Your task to perform on an android device: Look up the best rated book on Goodreads Image 0: 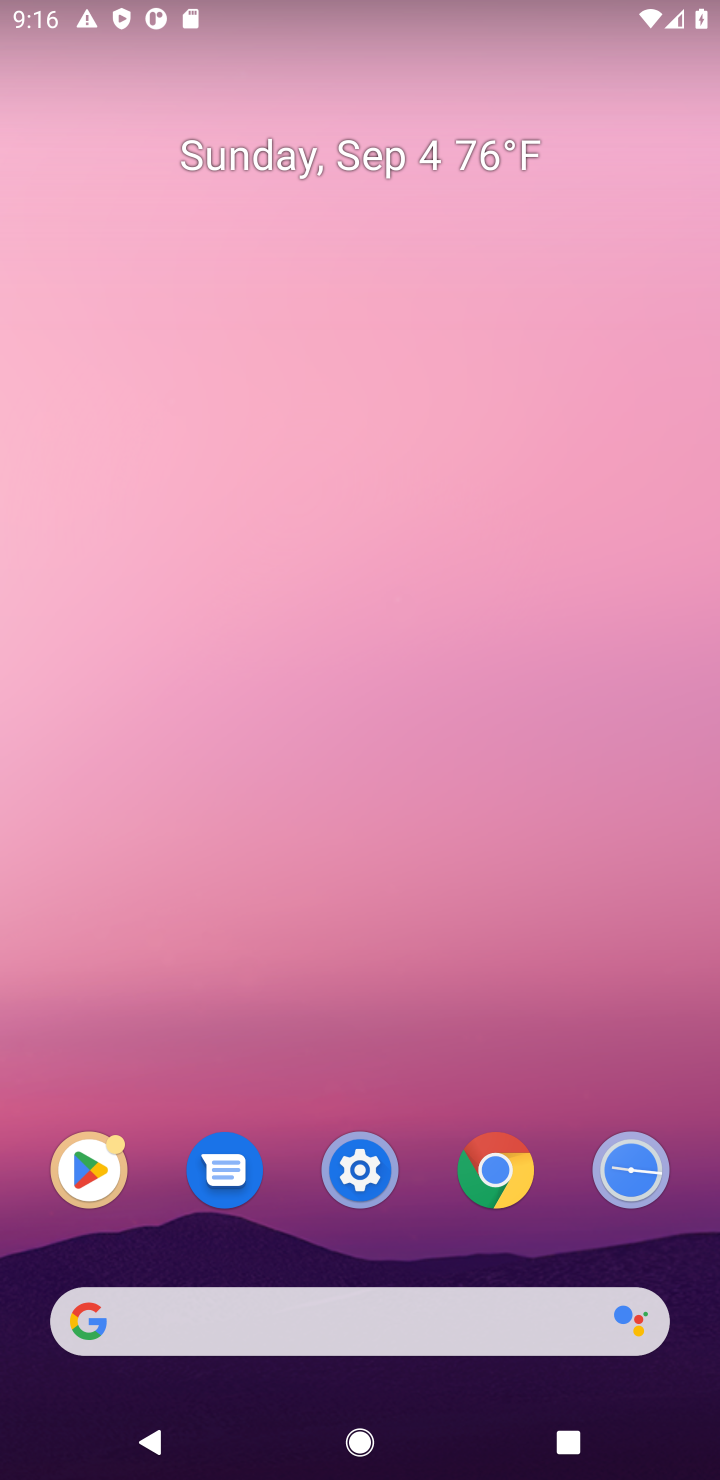
Step 0: click (403, 1297)
Your task to perform on an android device: Look up the best rated book on Goodreads Image 1: 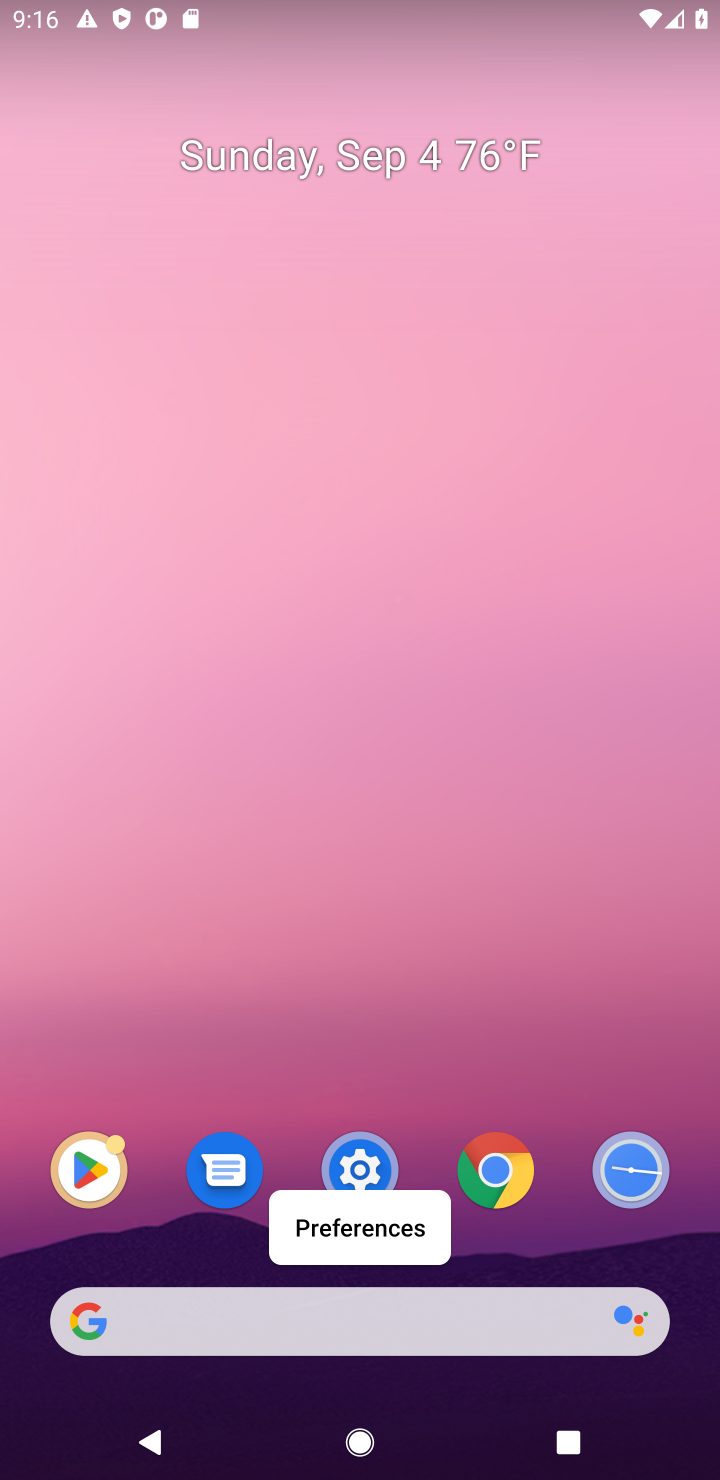
Step 1: click (412, 1318)
Your task to perform on an android device: Look up the best rated book on Goodreads Image 2: 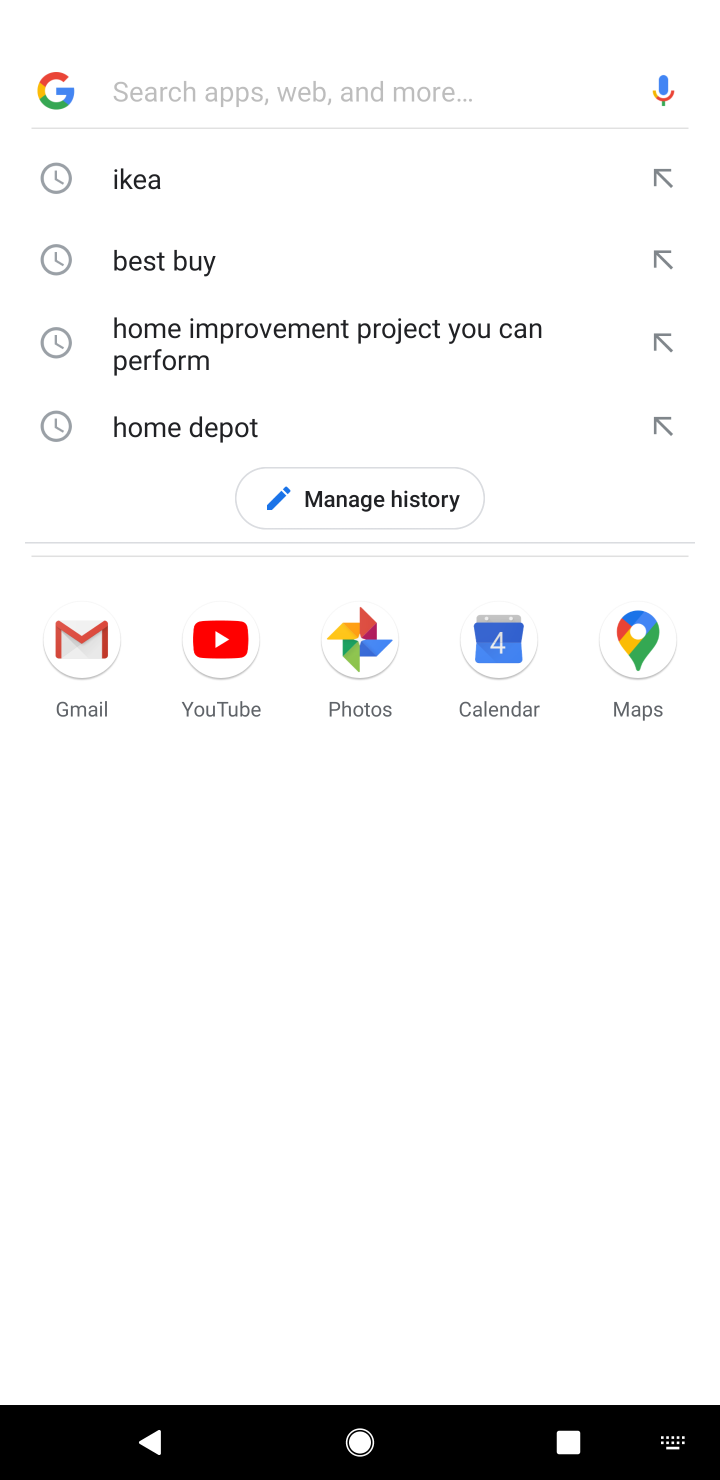
Step 2: click (412, 1318)
Your task to perform on an android device: Look up the best rated book on Goodreads Image 3: 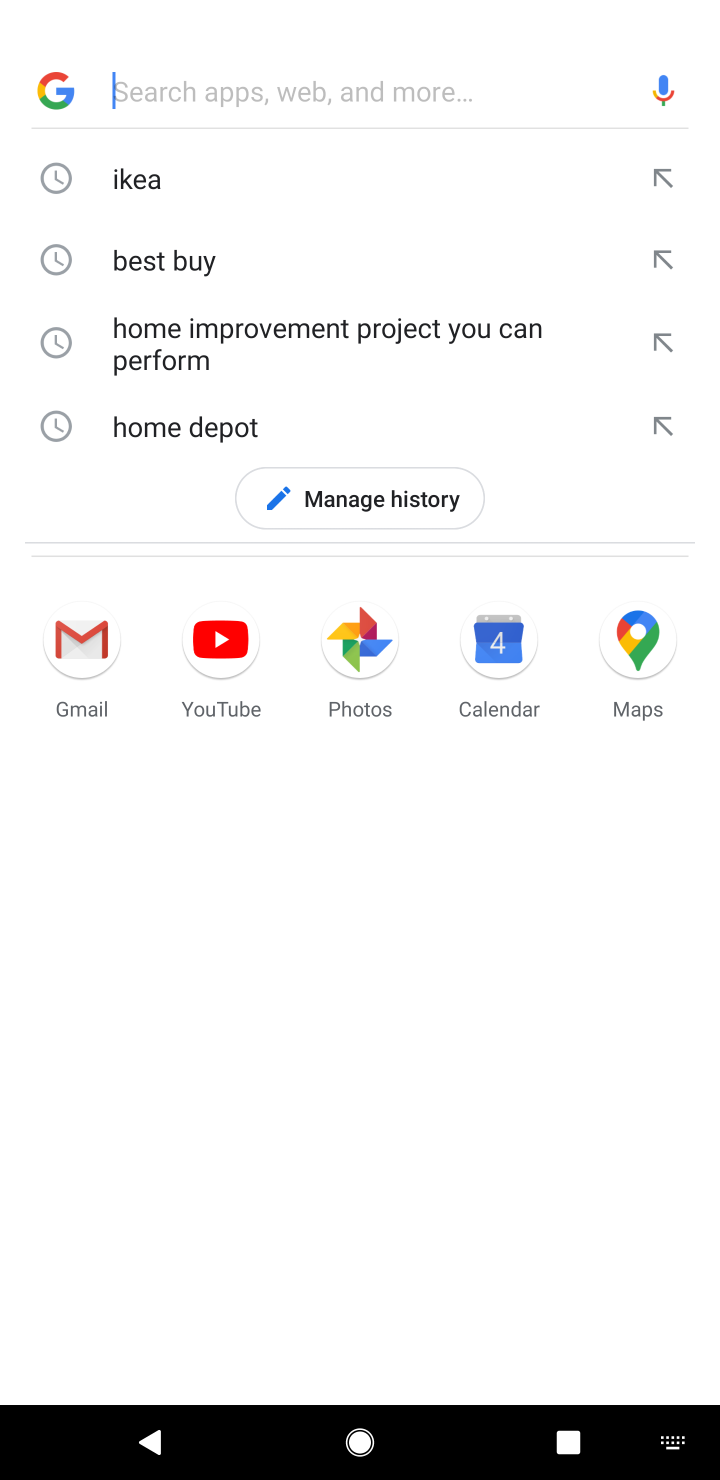
Step 3: type "Goodreads"
Your task to perform on an android device: Look up the best rated book on Goodreads Image 4: 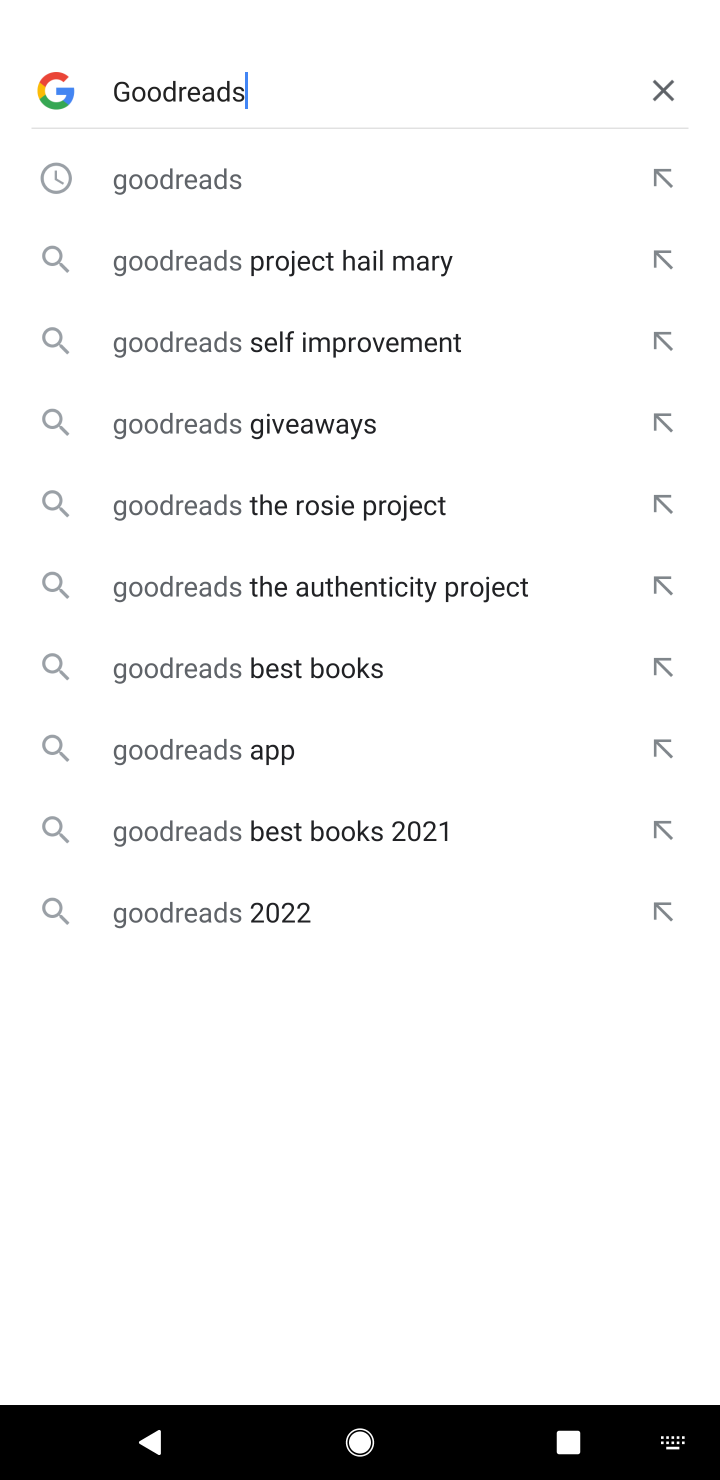
Step 4: click (239, 189)
Your task to perform on an android device: Look up the best rated book on Goodreads Image 5: 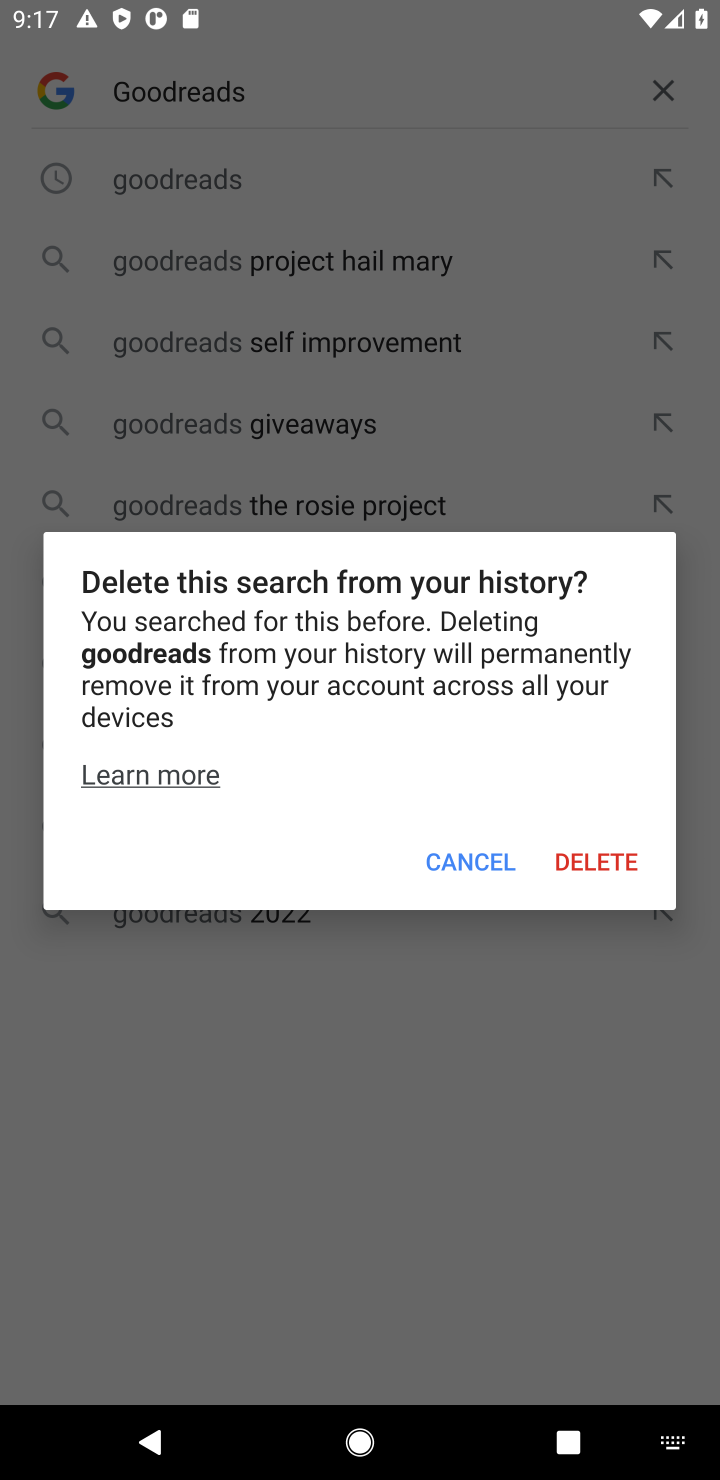
Step 5: click (463, 849)
Your task to perform on an android device: Look up the best rated book on Goodreads Image 6: 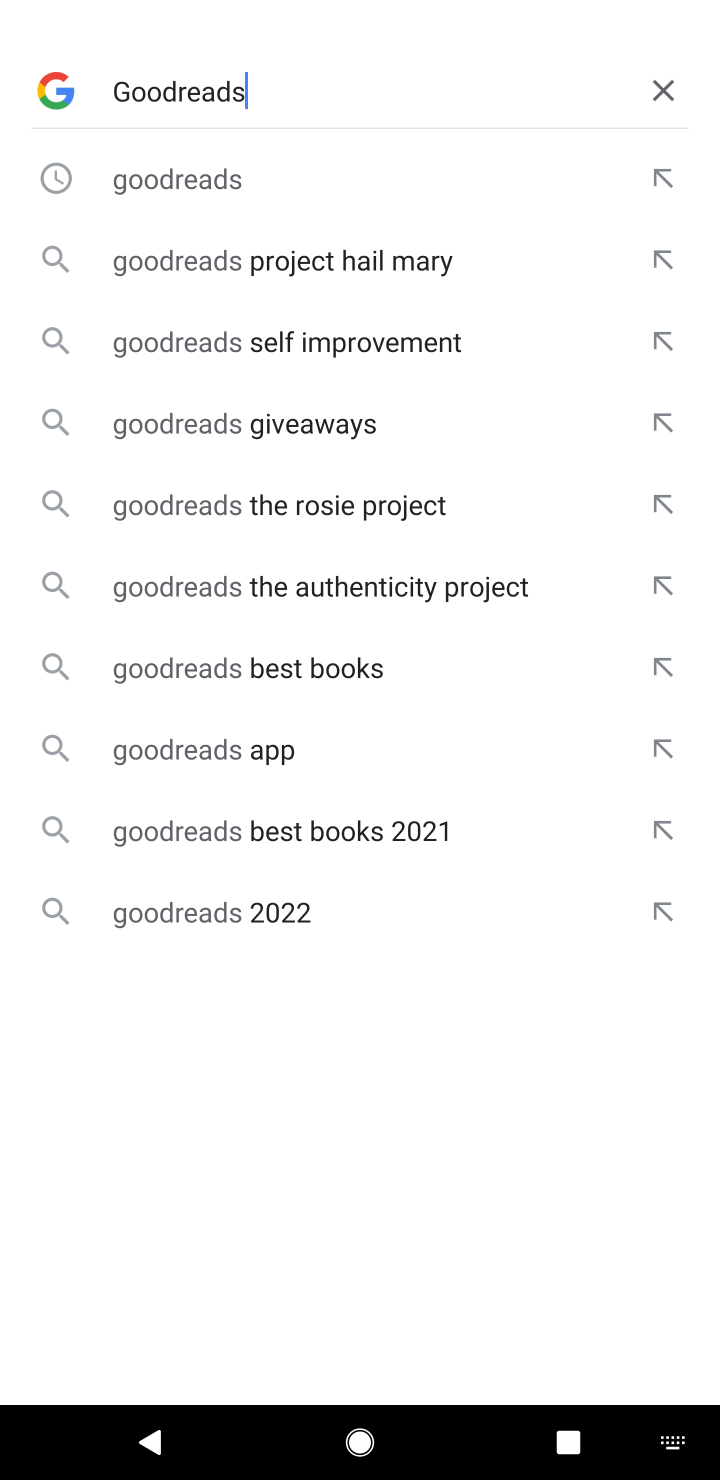
Step 6: click (232, 149)
Your task to perform on an android device: Look up the best rated book on Goodreads Image 7: 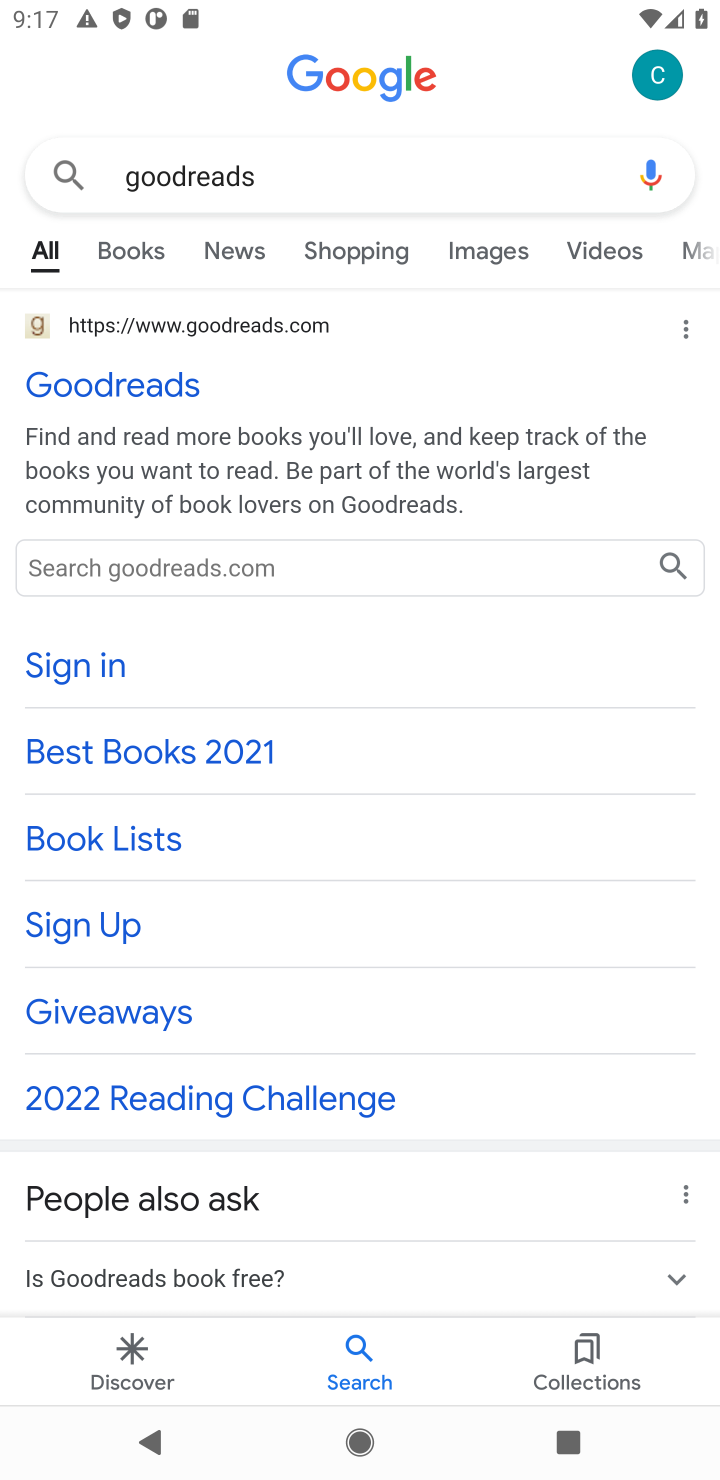
Step 7: click (148, 376)
Your task to perform on an android device: Look up the best rated book on Goodreads Image 8: 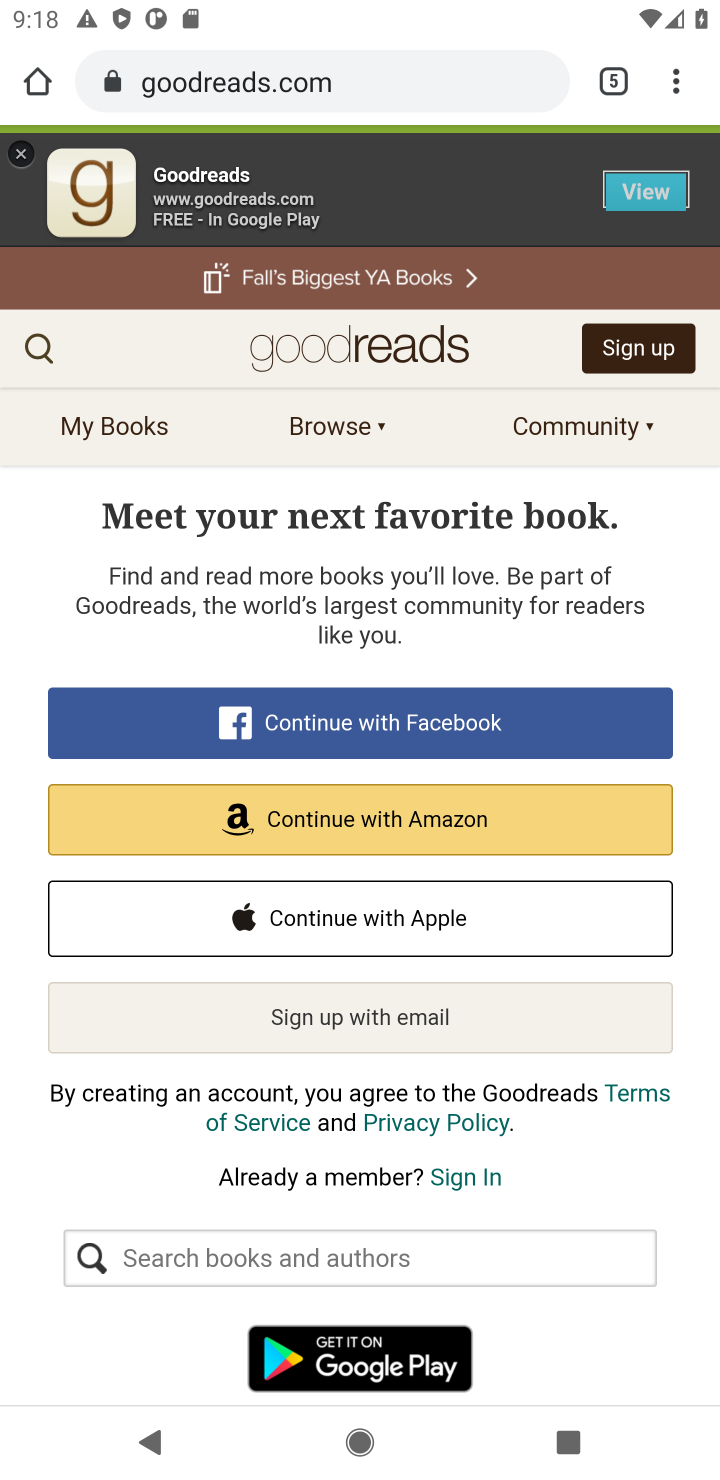
Step 8: click (53, 365)
Your task to perform on an android device: Look up the best rated book on Goodreads Image 9: 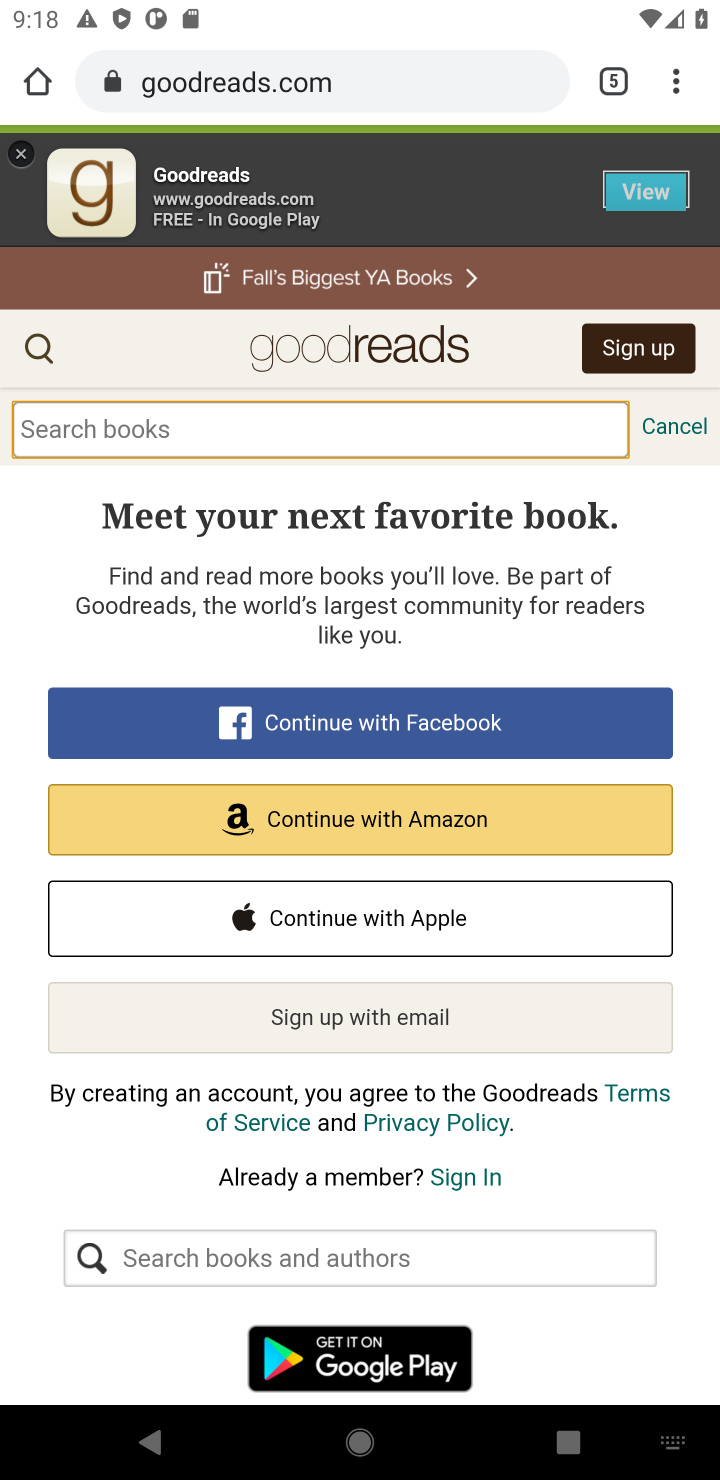
Step 9: type "book"
Your task to perform on an android device: Look up the best rated book on Goodreads Image 10: 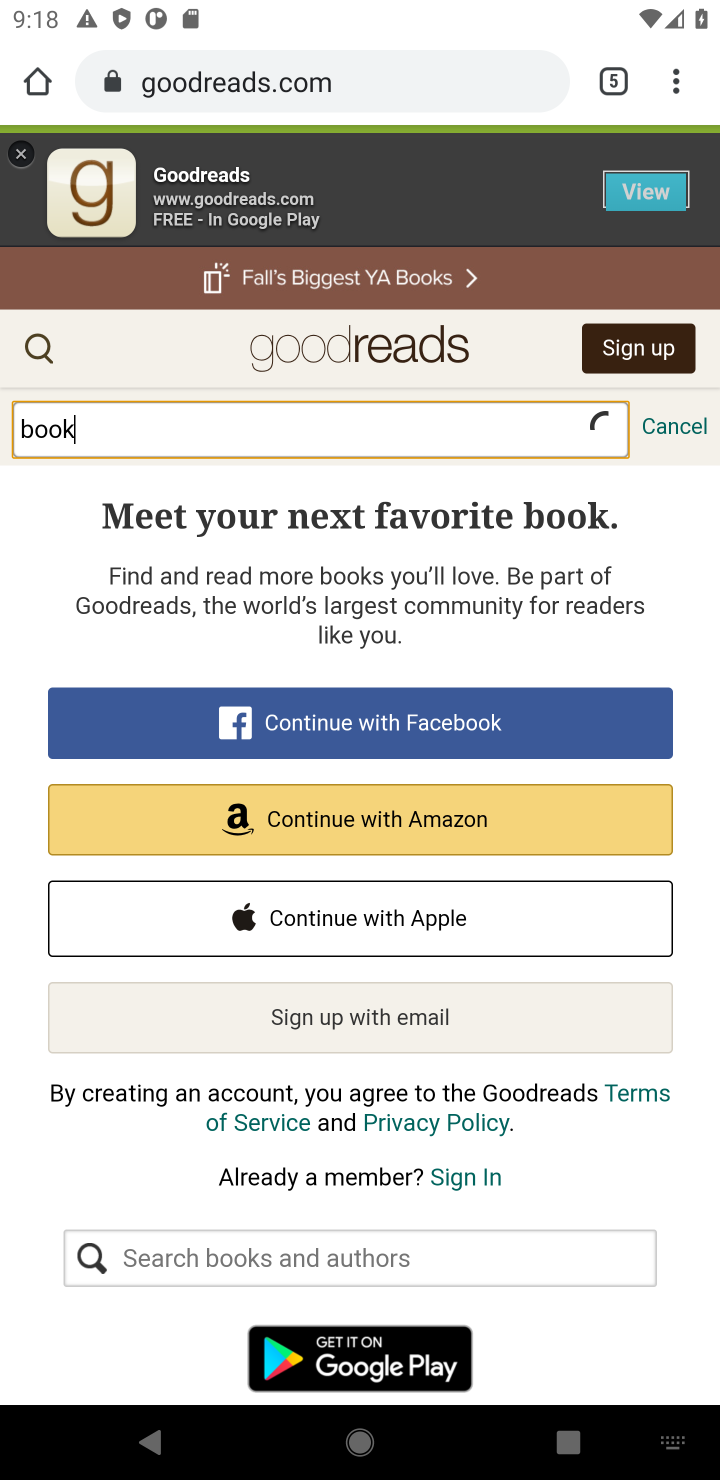
Step 10: type ""
Your task to perform on an android device: Look up the best rated book on Goodreads Image 11: 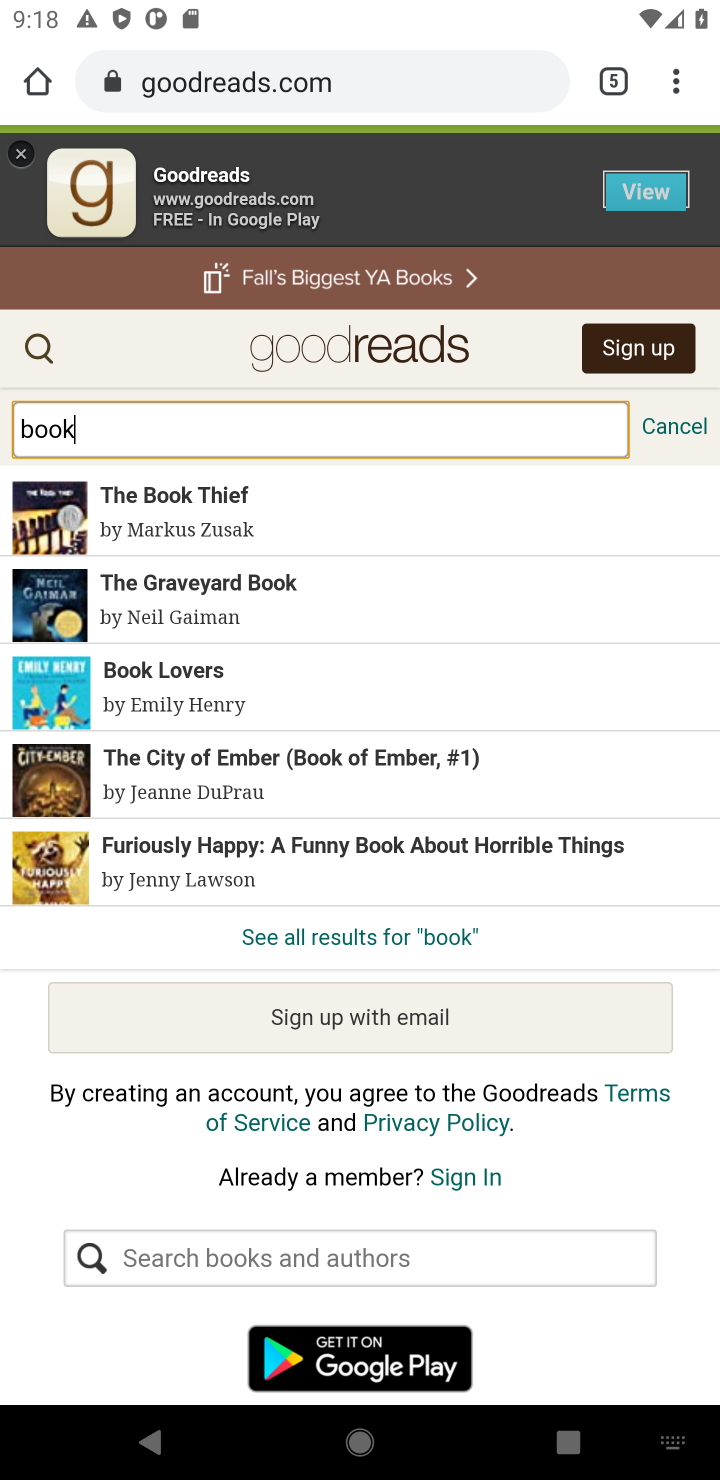
Step 11: click (196, 500)
Your task to perform on an android device: Look up the best rated book on Goodreads Image 12: 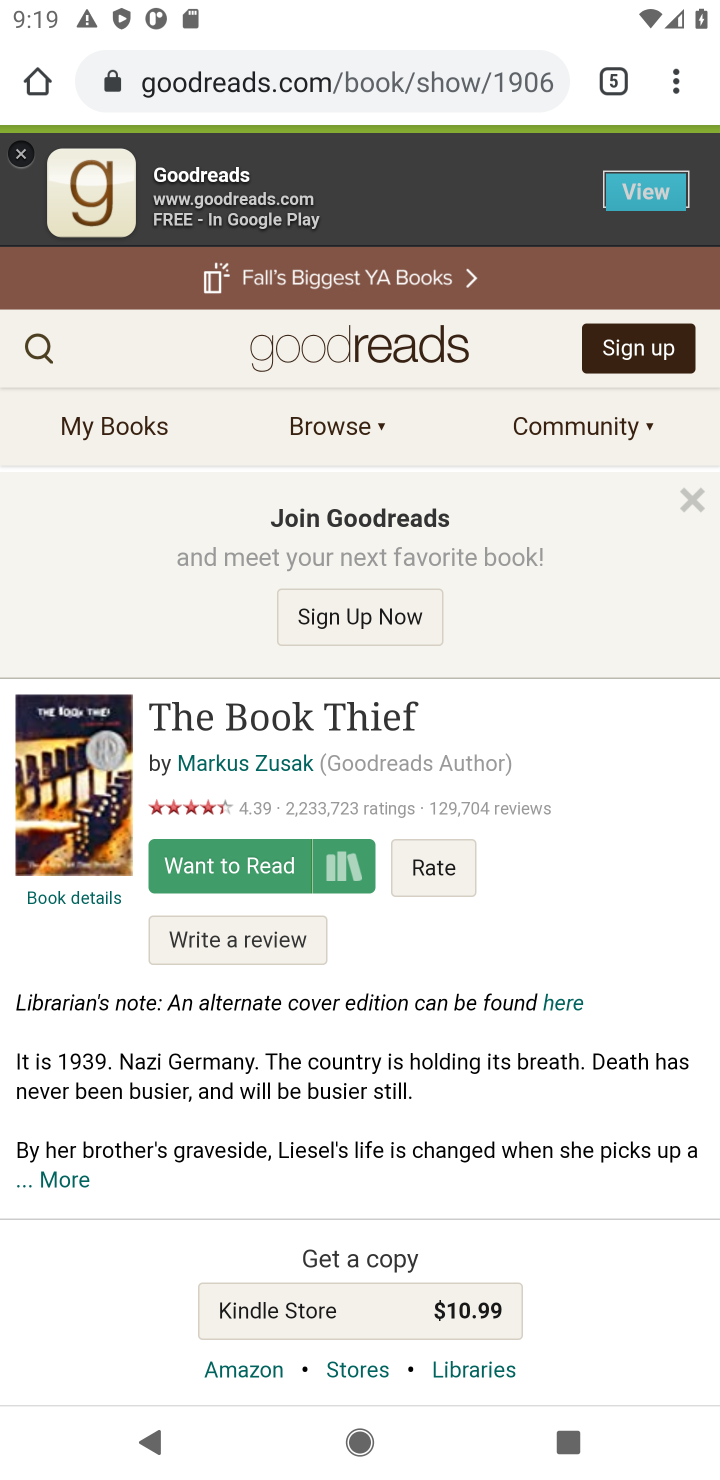
Step 12: task complete